Your task to perform on an android device: Go to Maps Image 0: 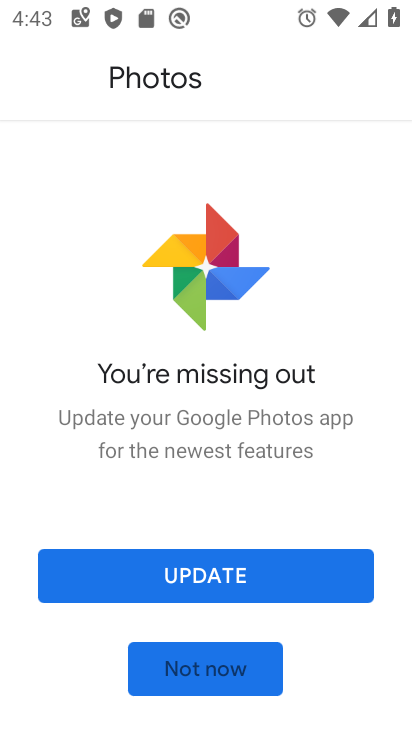
Step 0: press home button
Your task to perform on an android device: Go to Maps Image 1: 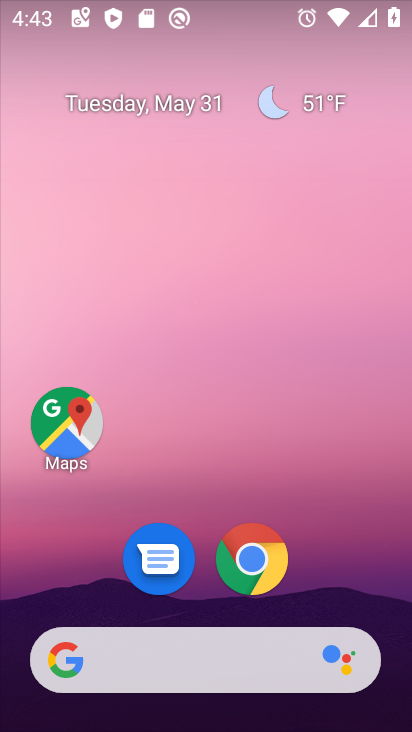
Step 1: click (60, 446)
Your task to perform on an android device: Go to Maps Image 2: 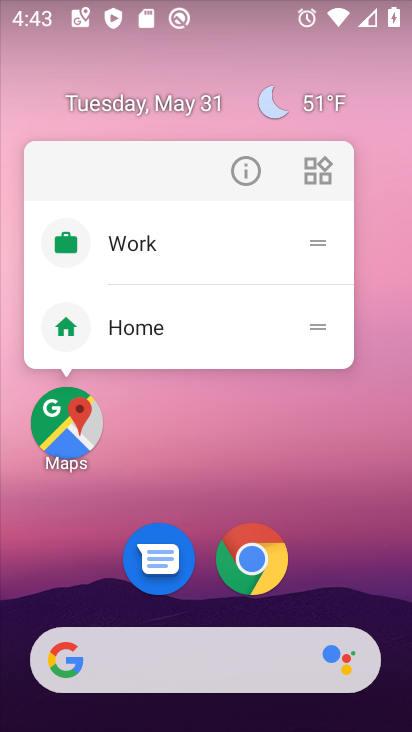
Step 2: click (36, 427)
Your task to perform on an android device: Go to Maps Image 3: 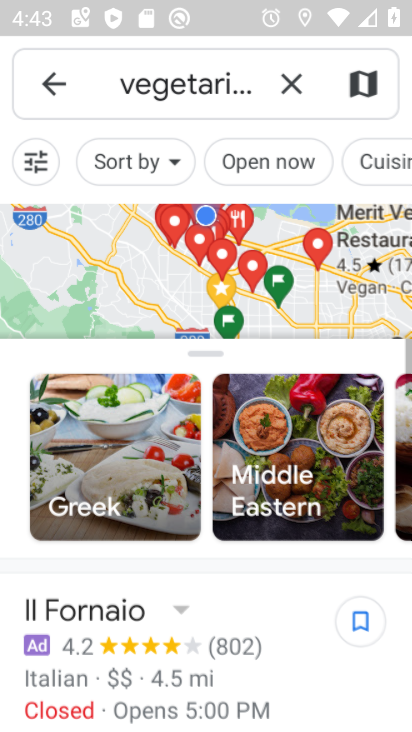
Step 3: task complete